Your task to perform on an android device: turn on the 12-hour format for clock Image 0: 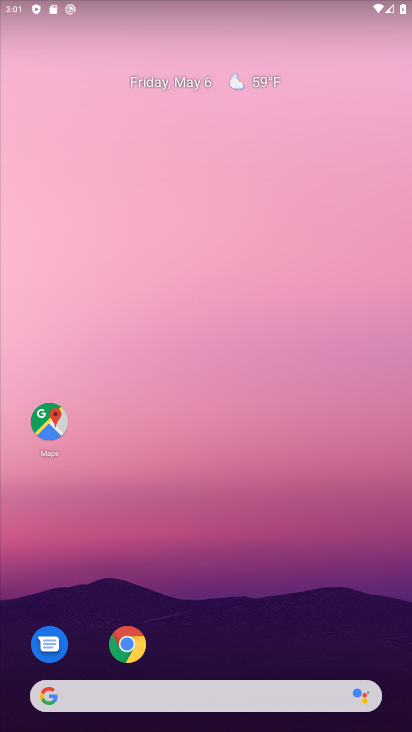
Step 0: drag from (253, 730) to (251, 127)
Your task to perform on an android device: turn on the 12-hour format for clock Image 1: 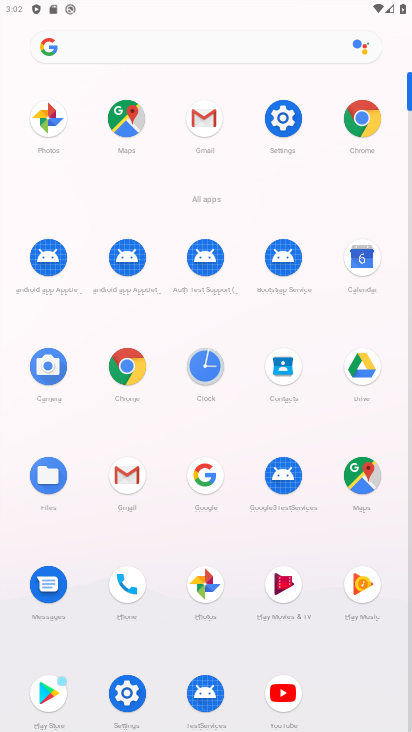
Step 1: click (200, 372)
Your task to perform on an android device: turn on the 12-hour format for clock Image 2: 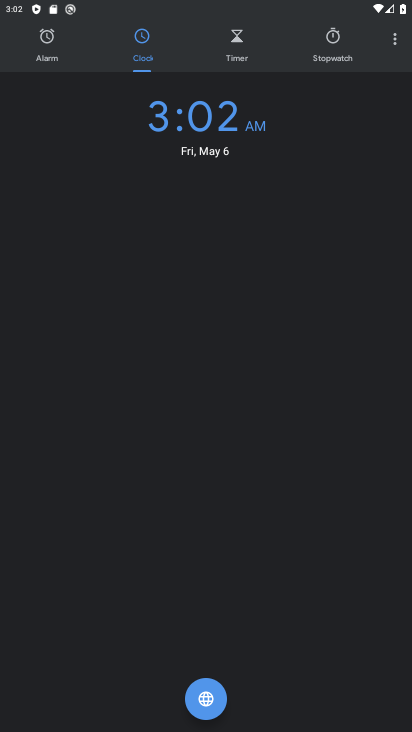
Step 2: click (396, 46)
Your task to perform on an android device: turn on the 12-hour format for clock Image 3: 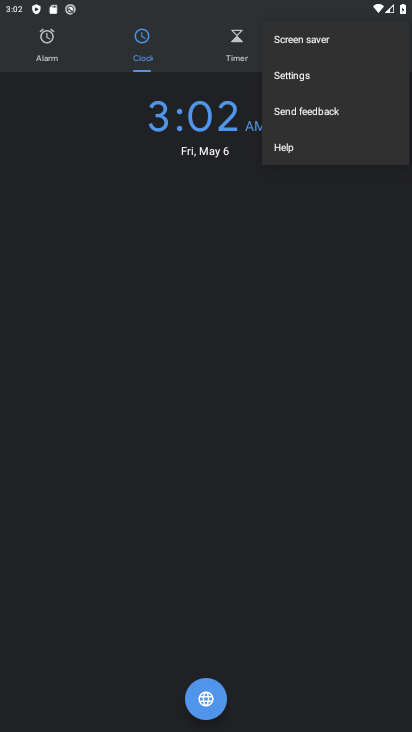
Step 3: click (295, 78)
Your task to perform on an android device: turn on the 12-hour format for clock Image 4: 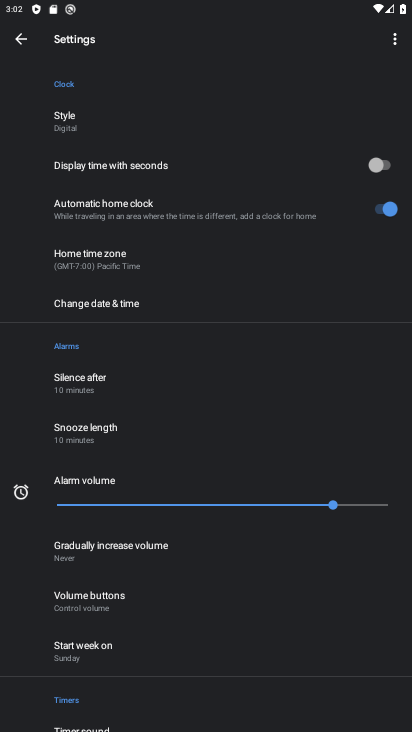
Step 4: click (98, 300)
Your task to perform on an android device: turn on the 12-hour format for clock Image 5: 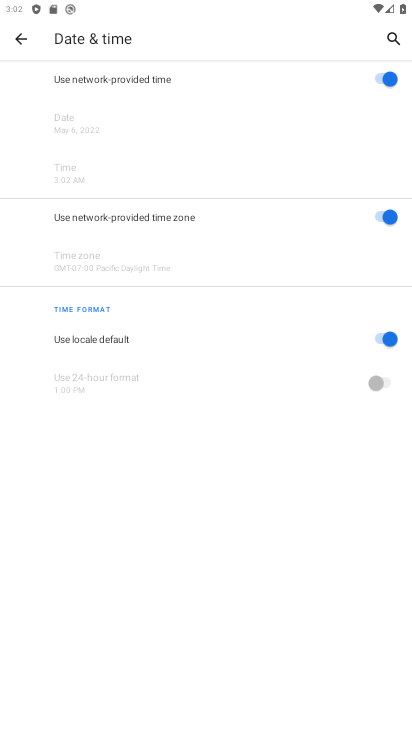
Step 5: task complete